Your task to perform on an android device: delete the emails in spam in the gmail app Image 0: 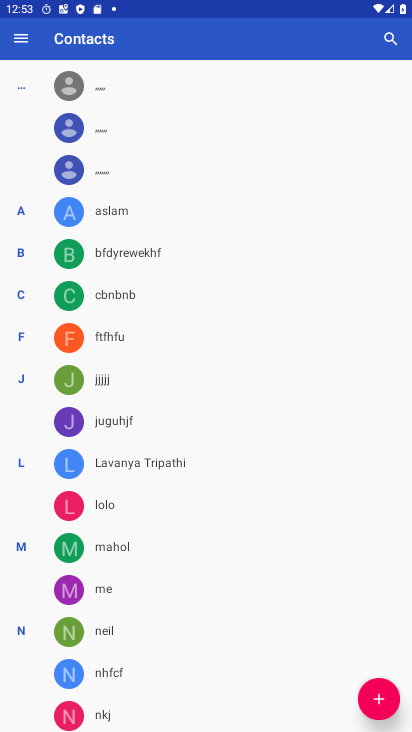
Step 0: press home button
Your task to perform on an android device: delete the emails in spam in the gmail app Image 1: 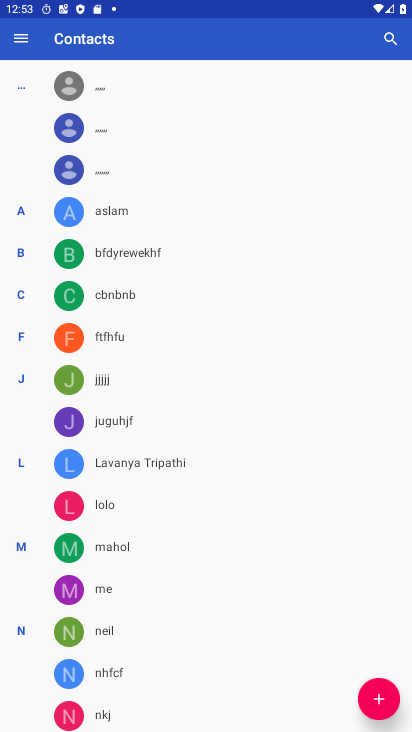
Step 1: press home button
Your task to perform on an android device: delete the emails in spam in the gmail app Image 2: 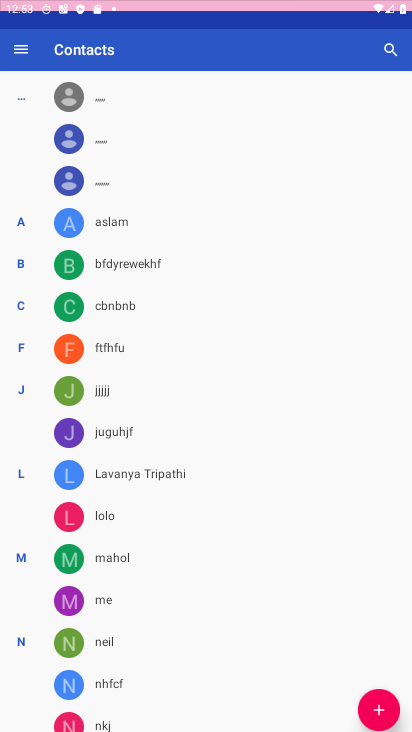
Step 2: click (198, 298)
Your task to perform on an android device: delete the emails in spam in the gmail app Image 3: 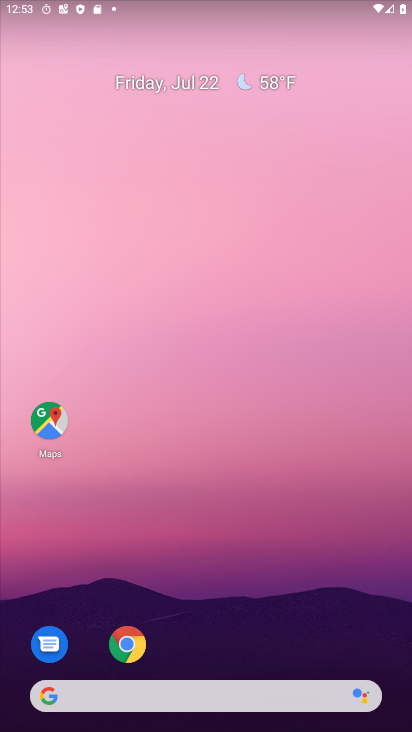
Step 3: drag from (215, 637) to (263, 112)
Your task to perform on an android device: delete the emails in spam in the gmail app Image 4: 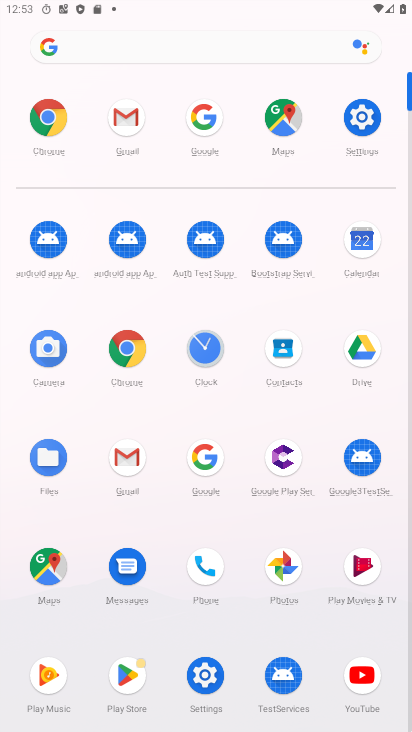
Step 4: click (135, 454)
Your task to perform on an android device: delete the emails in spam in the gmail app Image 5: 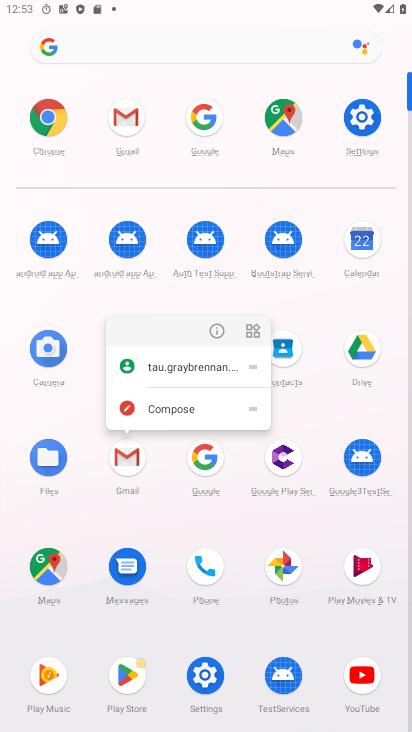
Step 5: click (209, 335)
Your task to perform on an android device: delete the emails in spam in the gmail app Image 6: 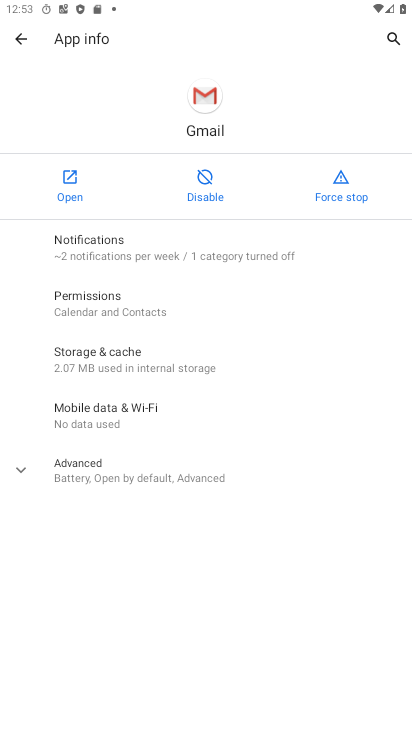
Step 6: click (79, 175)
Your task to perform on an android device: delete the emails in spam in the gmail app Image 7: 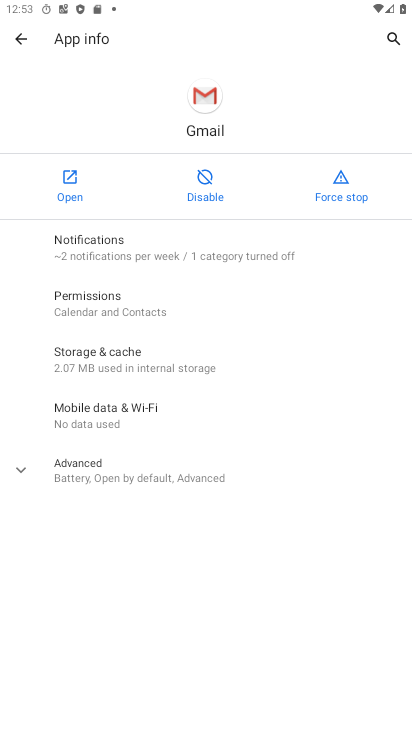
Step 7: click (78, 175)
Your task to perform on an android device: delete the emails in spam in the gmail app Image 8: 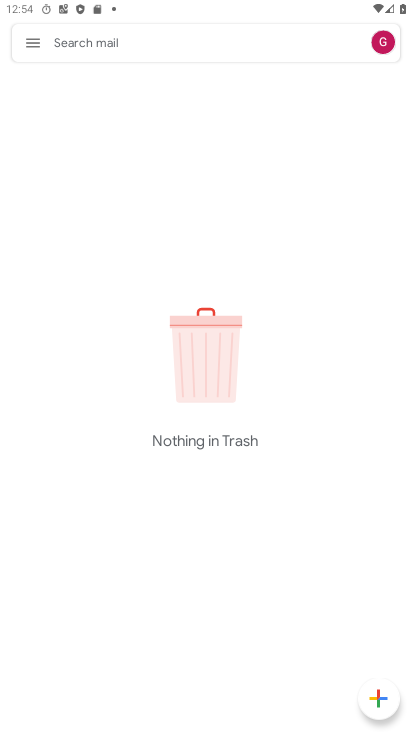
Step 8: drag from (240, 582) to (274, 131)
Your task to perform on an android device: delete the emails in spam in the gmail app Image 9: 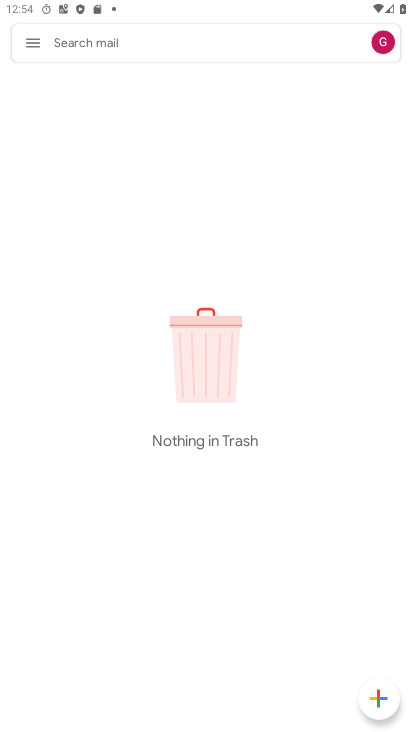
Step 9: drag from (224, 655) to (276, 338)
Your task to perform on an android device: delete the emails in spam in the gmail app Image 10: 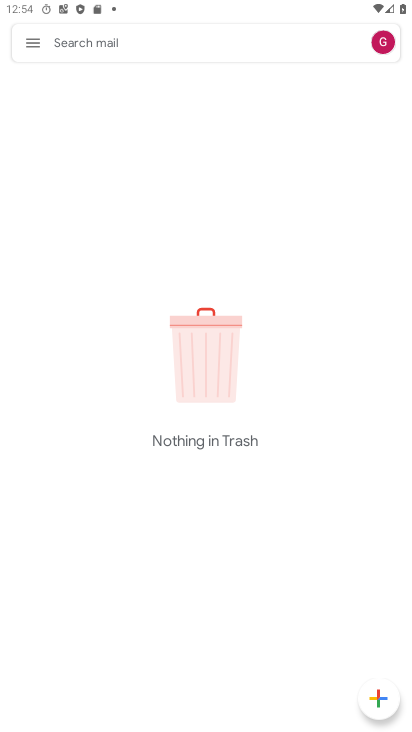
Step 10: drag from (179, 621) to (288, 205)
Your task to perform on an android device: delete the emails in spam in the gmail app Image 11: 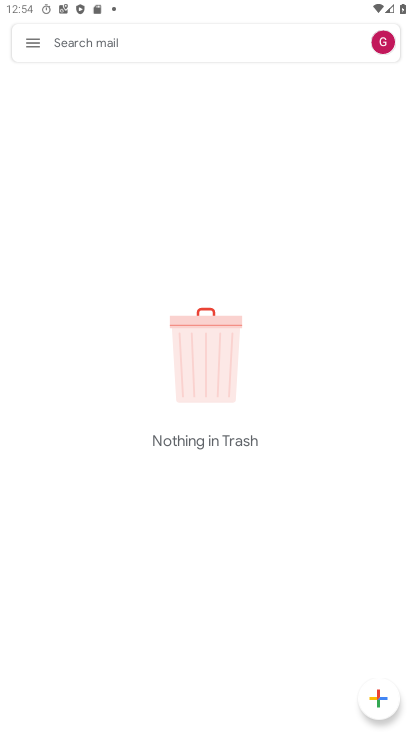
Step 11: click (44, 41)
Your task to perform on an android device: delete the emails in spam in the gmail app Image 12: 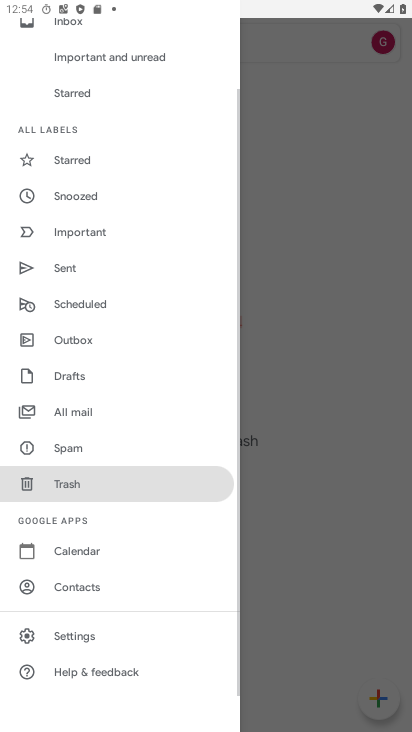
Step 12: drag from (122, 564) to (227, 88)
Your task to perform on an android device: delete the emails in spam in the gmail app Image 13: 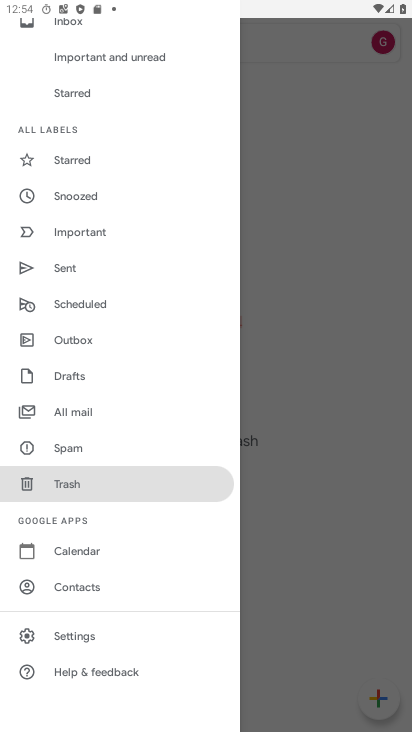
Step 13: click (58, 440)
Your task to perform on an android device: delete the emails in spam in the gmail app Image 14: 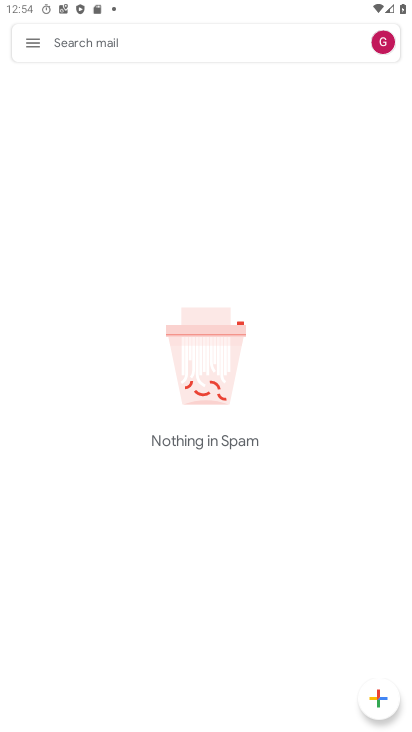
Step 14: drag from (168, 560) to (289, 45)
Your task to perform on an android device: delete the emails in spam in the gmail app Image 15: 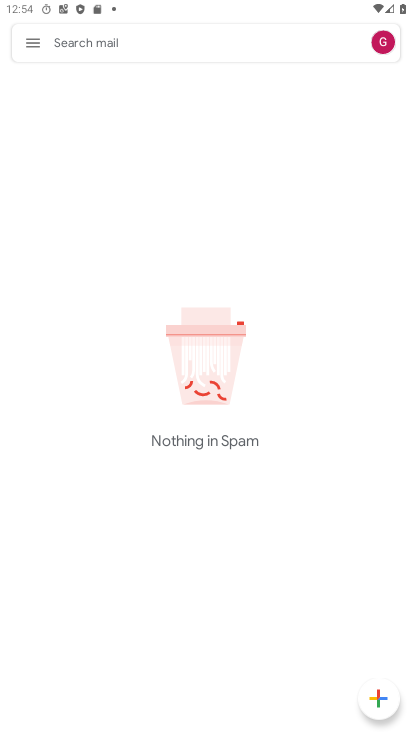
Step 15: drag from (187, 628) to (272, 309)
Your task to perform on an android device: delete the emails in spam in the gmail app Image 16: 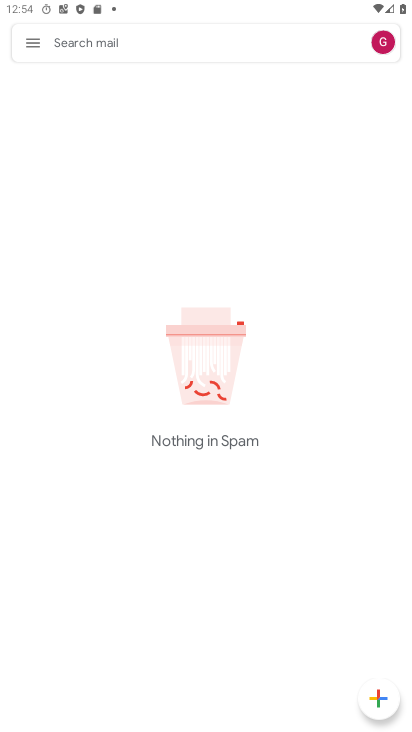
Step 16: drag from (181, 543) to (195, 594)
Your task to perform on an android device: delete the emails in spam in the gmail app Image 17: 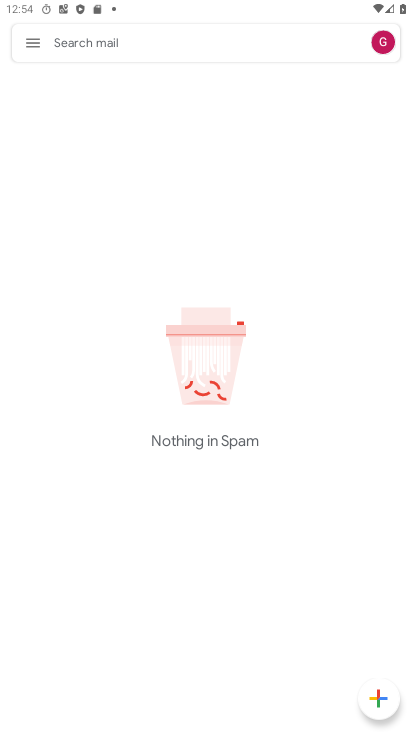
Step 17: click (23, 48)
Your task to perform on an android device: delete the emails in spam in the gmail app Image 18: 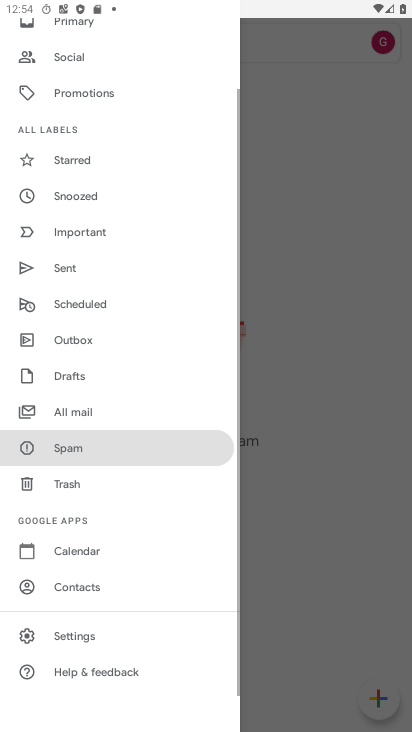
Step 18: click (302, 400)
Your task to perform on an android device: delete the emails in spam in the gmail app Image 19: 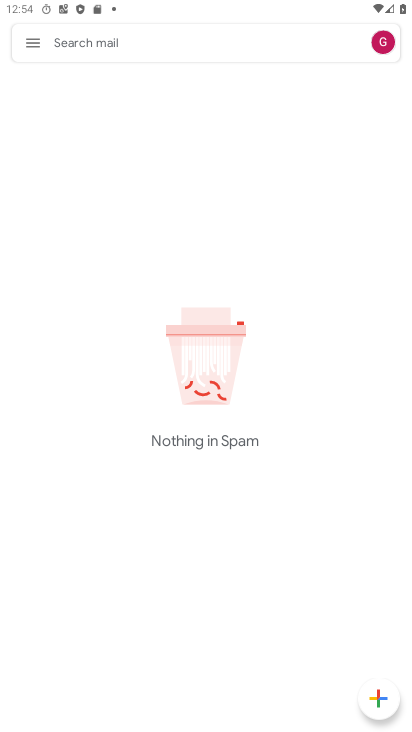
Step 19: task complete